Your task to perform on an android device: Go to Google Image 0: 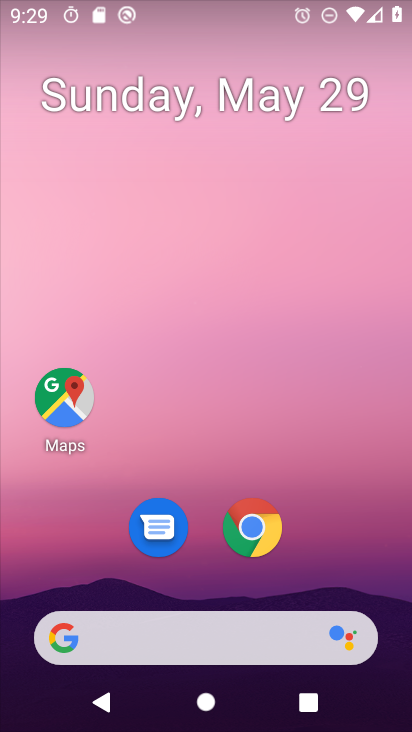
Step 0: drag from (383, 633) to (299, 134)
Your task to perform on an android device: Go to Google Image 1: 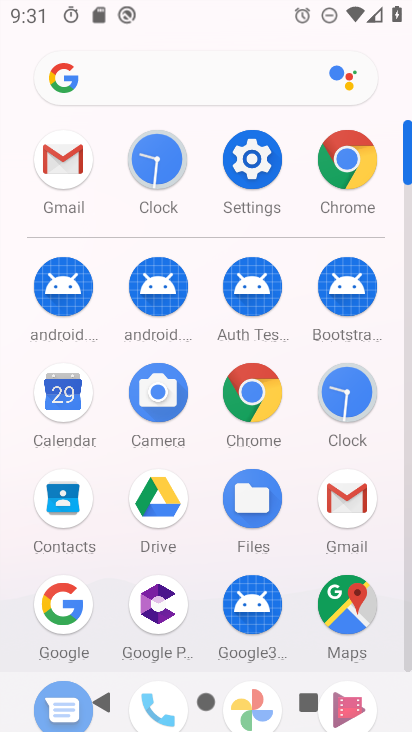
Step 1: click (74, 589)
Your task to perform on an android device: Go to Google Image 2: 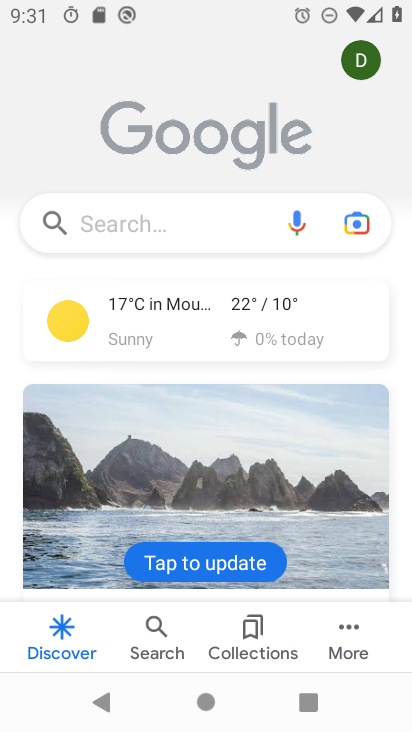
Step 2: task complete